Your task to perform on an android device: change timer sound Image 0: 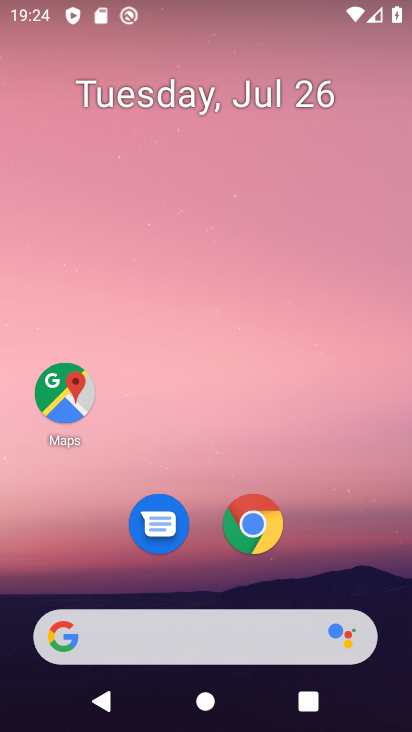
Step 0: press home button
Your task to perform on an android device: change timer sound Image 1: 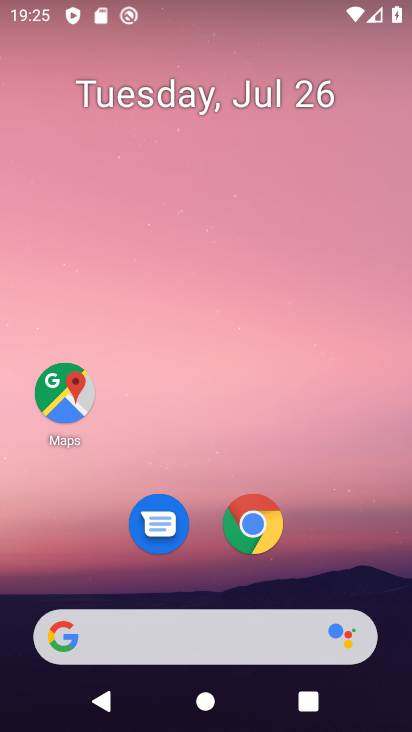
Step 1: drag from (183, 636) to (314, 117)
Your task to perform on an android device: change timer sound Image 2: 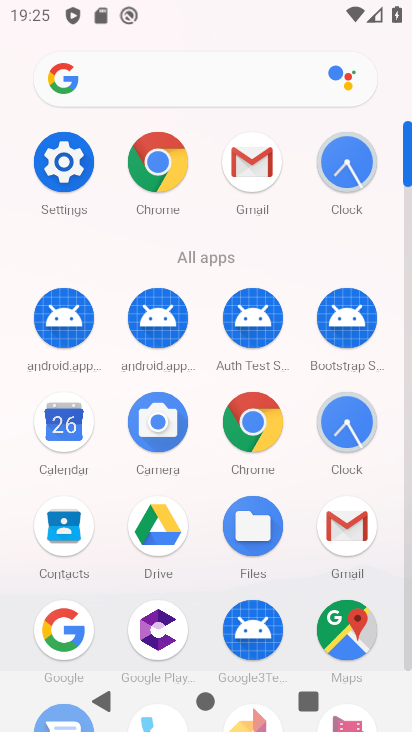
Step 2: click (350, 428)
Your task to perform on an android device: change timer sound Image 3: 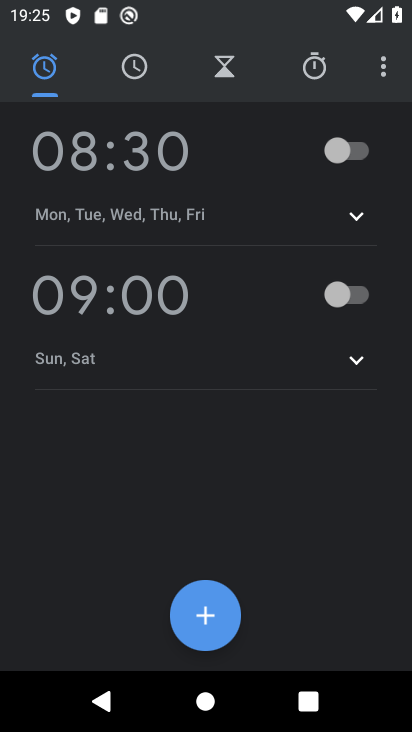
Step 3: click (384, 78)
Your task to perform on an android device: change timer sound Image 4: 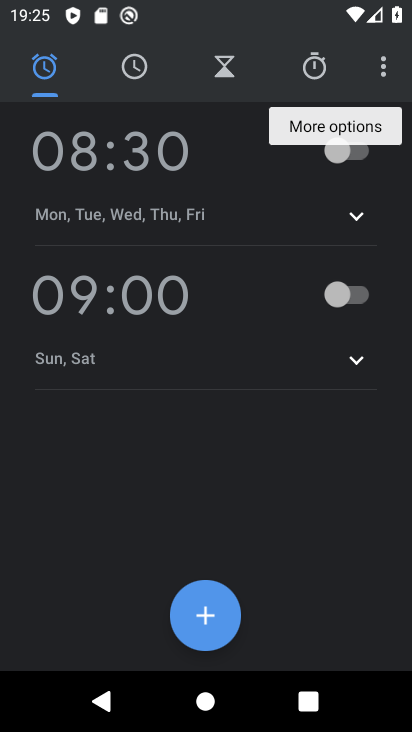
Step 4: click (377, 66)
Your task to perform on an android device: change timer sound Image 5: 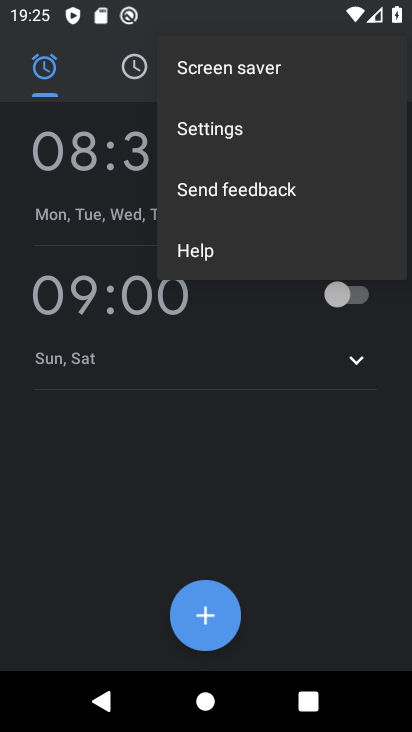
Step 5: click (242, 126)
Your task to perform on an android device: change timer sound Image 6: 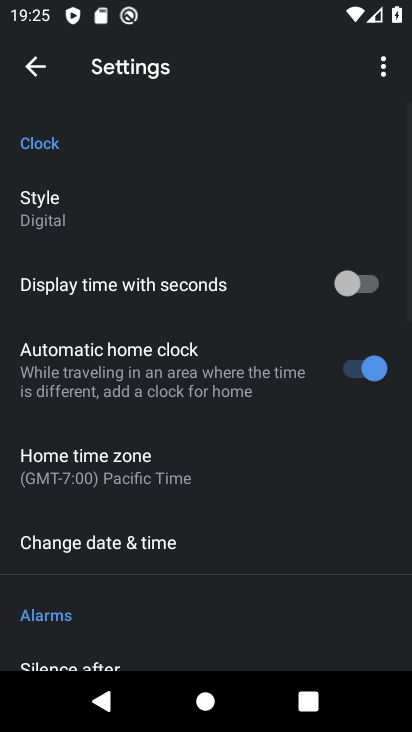
Step 6: drag from (270, 512) to (347, 204)
Your task to perform on an android device: change timer sound Image 7: 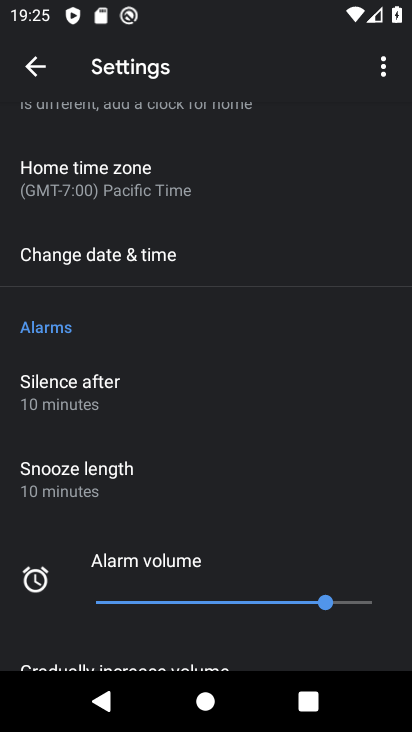
Step 7: drag from (298, 482) to (403, 30)
Your task to perform on an android device: change timer sound Image 8: 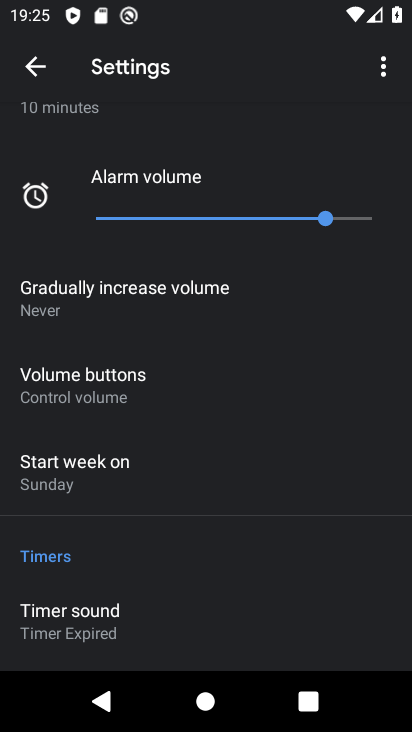
Step 8: drag from (197, 520) to (353, 189)
Your task to perform on an android device: change timer sound Image 9: 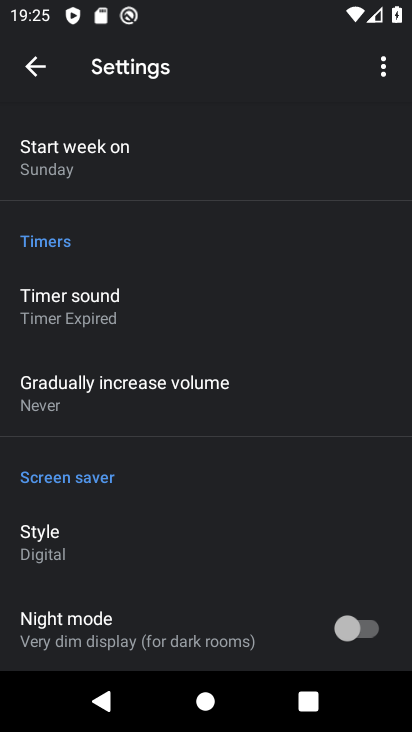
Step 9: click (100, 311)
Your task to perform on an android device: change timer sound Image 10: 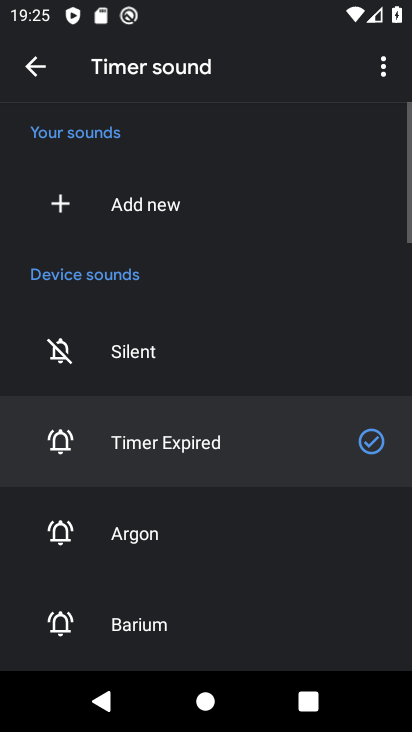
Step 10: click (148, 628)
Your task to perform on an android device: change timer sound Image 11: 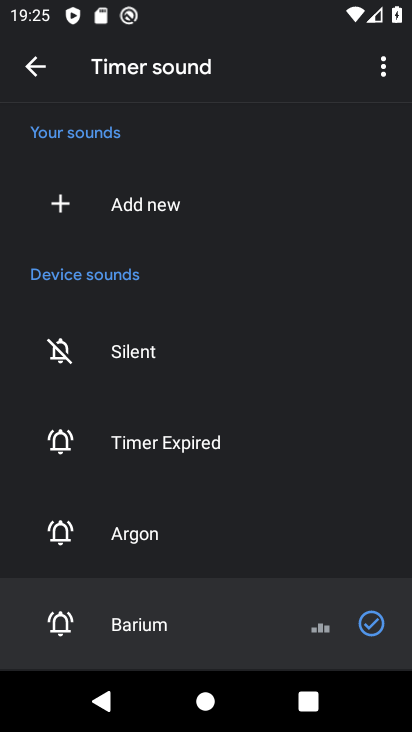
Step 11: task complete